Your task to perform on an android device: find snoozed emails in the gmail app Image 0: 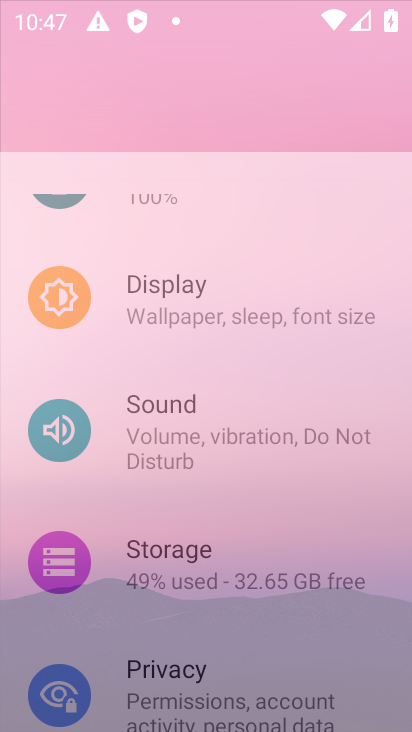
Step 0: drag from (181, 57) to (182, 9)
Your task to perform on an android device: find snoozed emails in the gmail app Image 1: 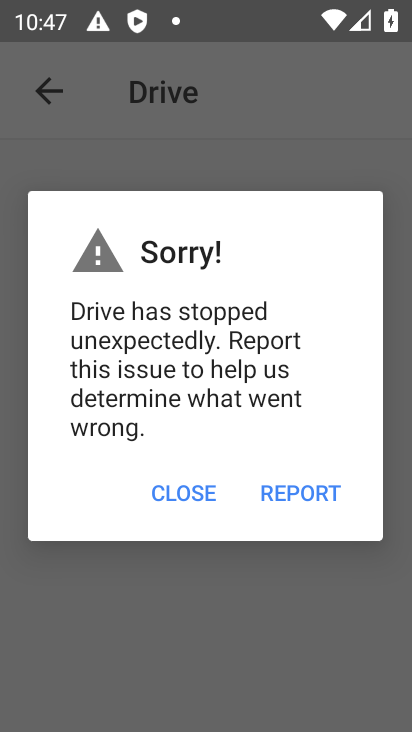
Step 1: click (161, 488)
Your task to perform on an android device: find snoozed emails in the gmail app Image 2: 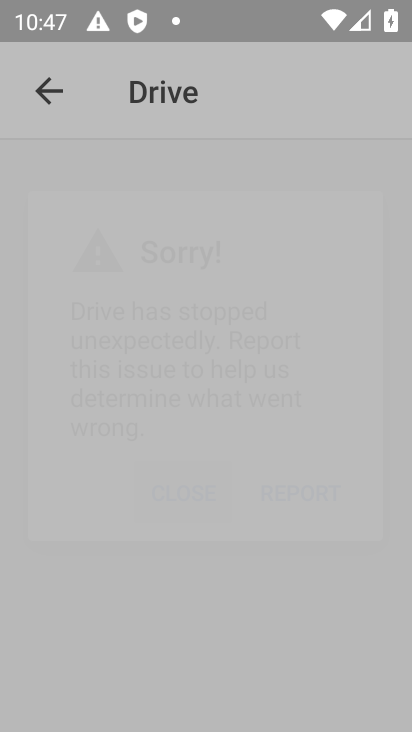
Step 2: click (161, 488)
Your task to perform on an android device: find snoozed emails in the gmail app Image 3: 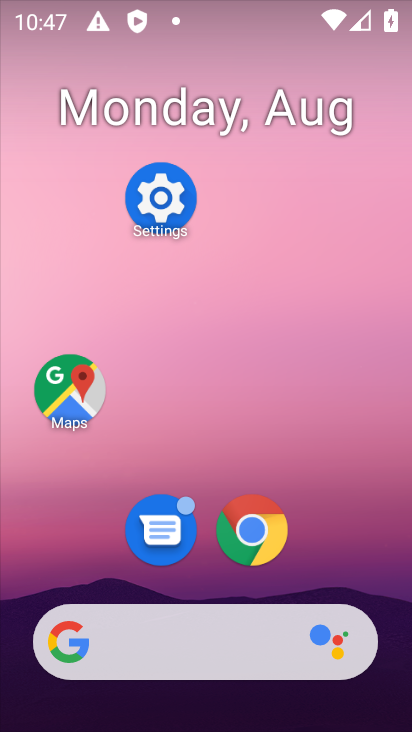
Step 3: drag from (195, 645) to (197, 103)
Your task to perform on an android device: find snoozed emails in the gmail app Image 4: 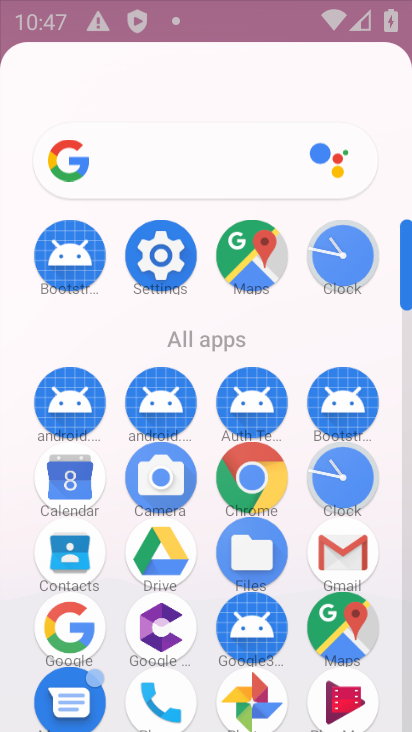
Step 4: drag from (248, 165) to (126, 16)
Your task to perform on an android device: find snoozed emails in the gmail app Image 5: 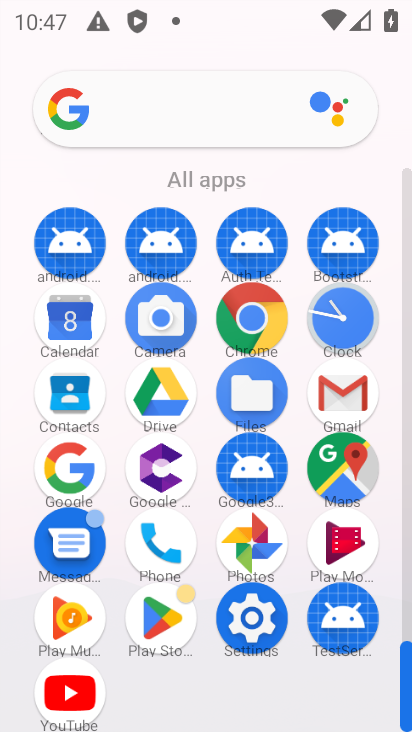
Step 5: click (345, 386)
Your task to perform on an android device: find snoozed emails in the gmail app Image 6: 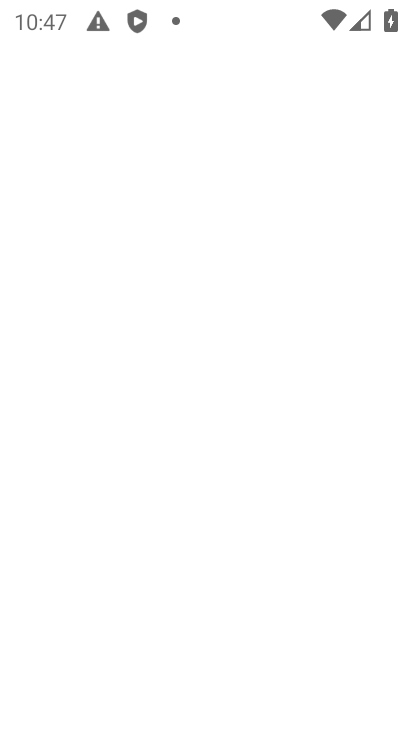
Step 6: click (319, 383)
Your task to perform on an android device: find snoozed emails in the gmail app Image 7: 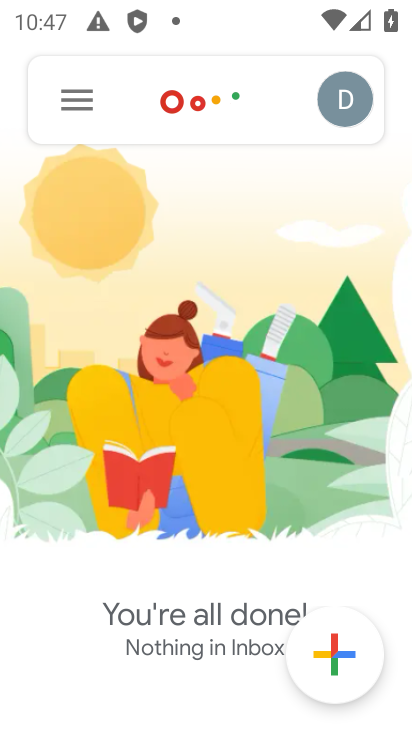
Step 7: click (78, 115)
Your task to perform on an android device: find snoozed emails in the gmail app Image 8: 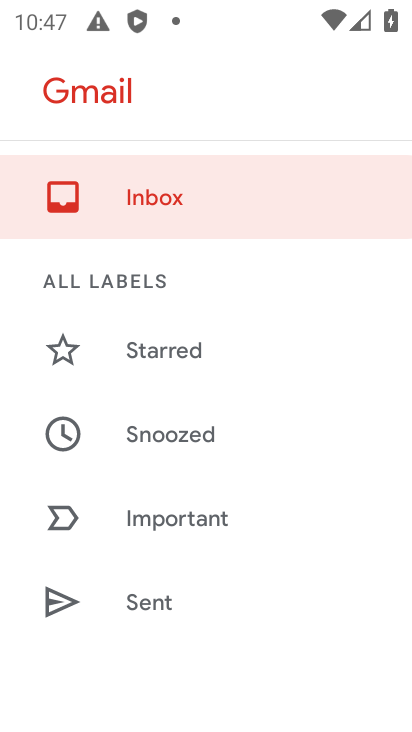
Step 8: click (166, 436)
Your task to perform on an android device: find snoozed emails in the gmail app Image 9: 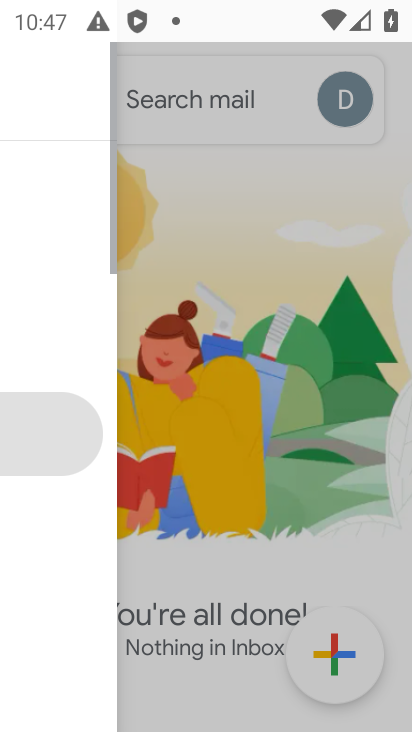
Step 9: click (168, 439)
Your task to perform on an android device: find snoozed emails in the gmail app Image 10: 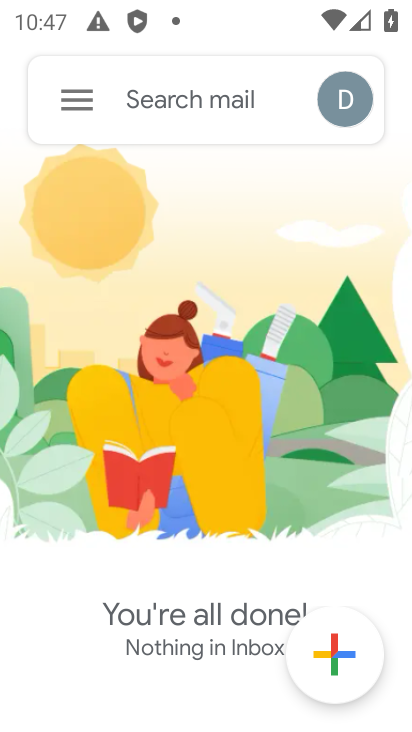
Step 10: click (170, 434)
Your task to perform on an android device: find snoozed emails in the gmail app Image 11: 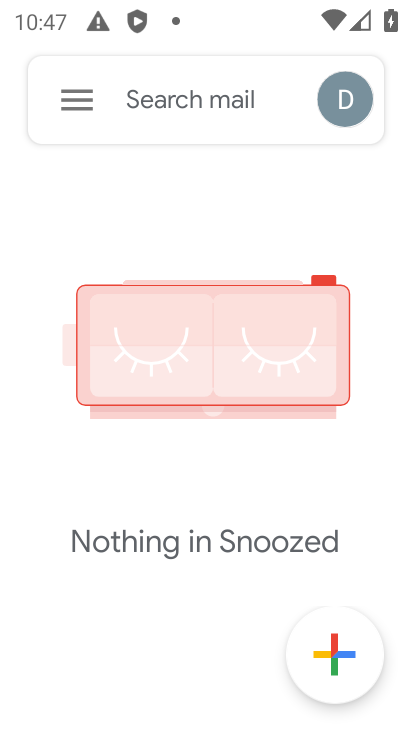
Step 11: task complete